Your task to perform on an android device: Open calendar and show me the fourth week of next month Image 0: 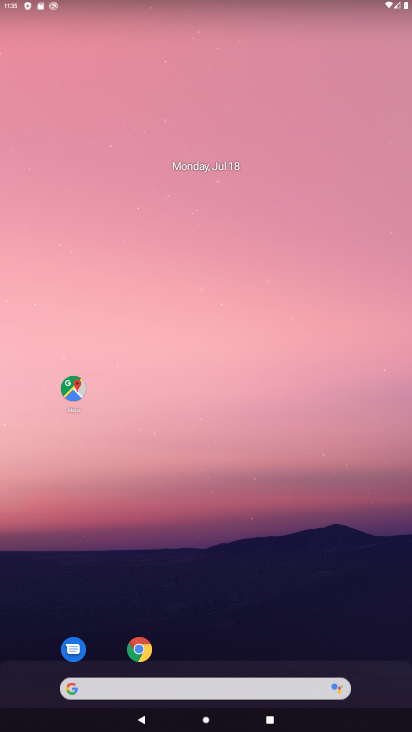
Step 0: drag from (311, 491) to (351, 203)
Your task to perform on an android device: Open calendar and show me the fourth week of next month Image 1: 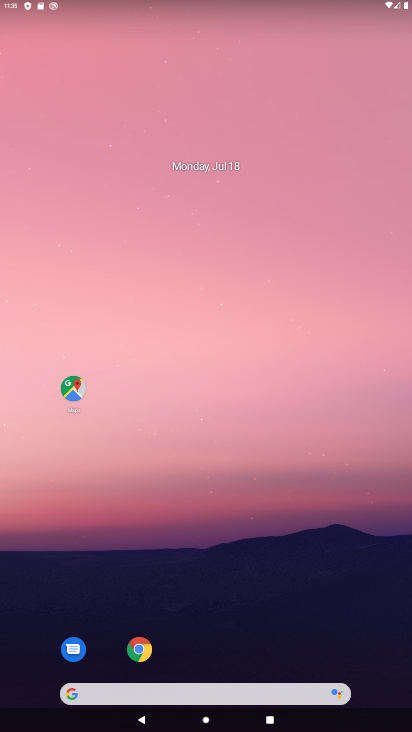
Step 1: drag from (251, 583) to (339, 190)
Your task to perform on an android device: Open calendar and show me the fourth week of next month Image 2: 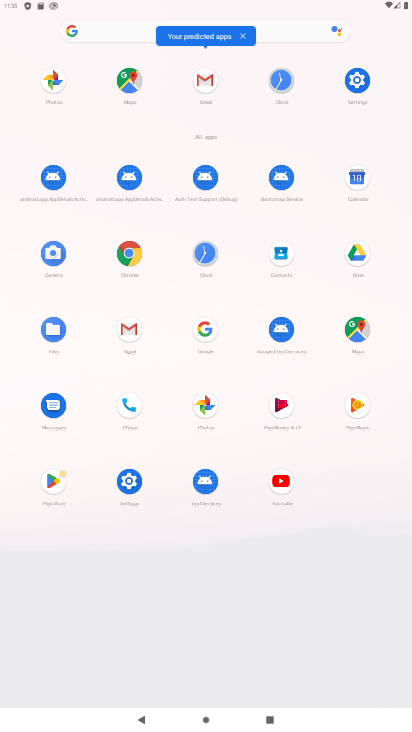
Step 2: click (361, 168)
Your task to perform on an android device: Open calendar and show me the fourth week of next month Image 3: 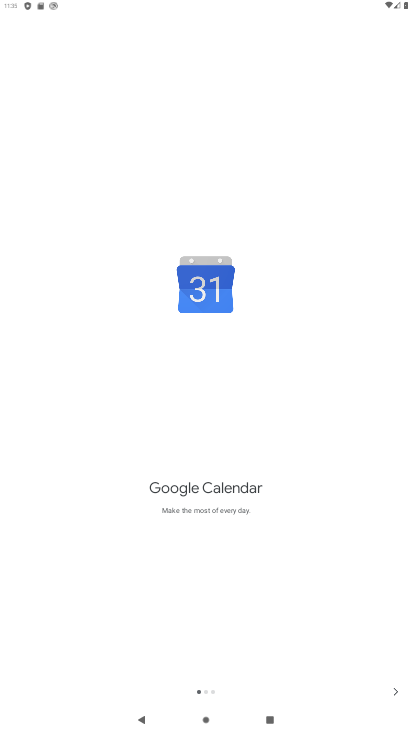
Step 3: click (395, 693)
Your task to perform on an android device: Open calendar and show me the fourth week of next month Image 4: 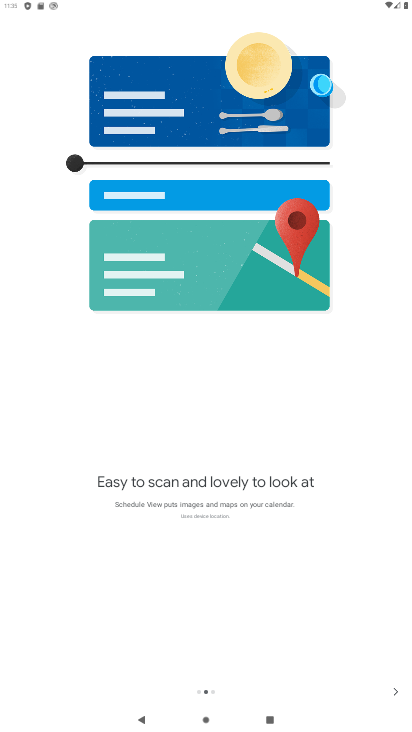
Step 4: click (395, 693)
Your task to perform on an android device: Open calendar and show me the fourth week of next month Image 5: 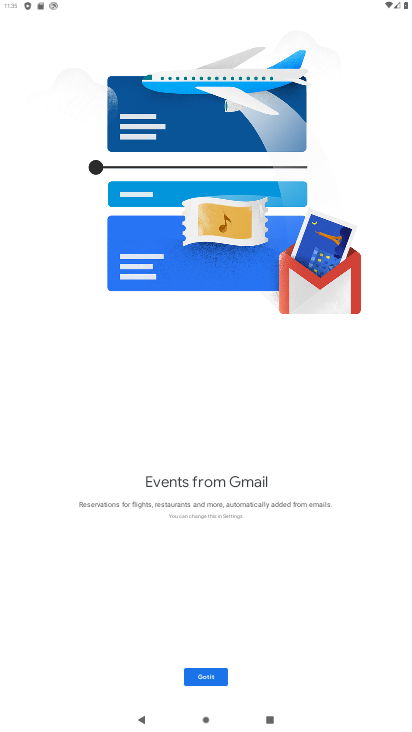
Step 5: click (395, 693)
Your task to perform on an android device: Open calendar and show me the fourth week of next month Image 6: 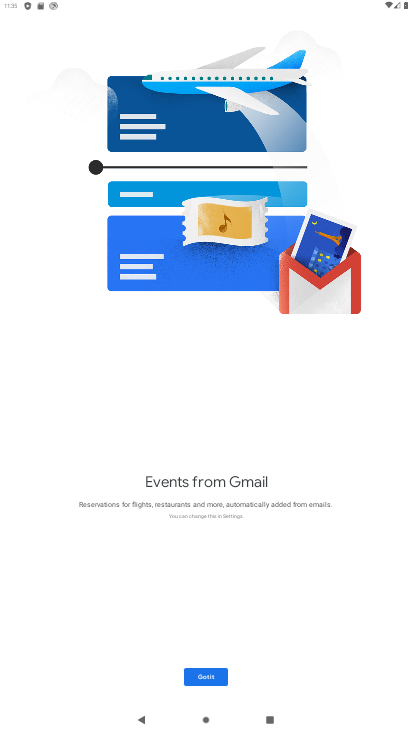
Step 6: click (198, 670)
Your task to perform on an android device: Open calendar and show me the fourth week of next month Image 7: 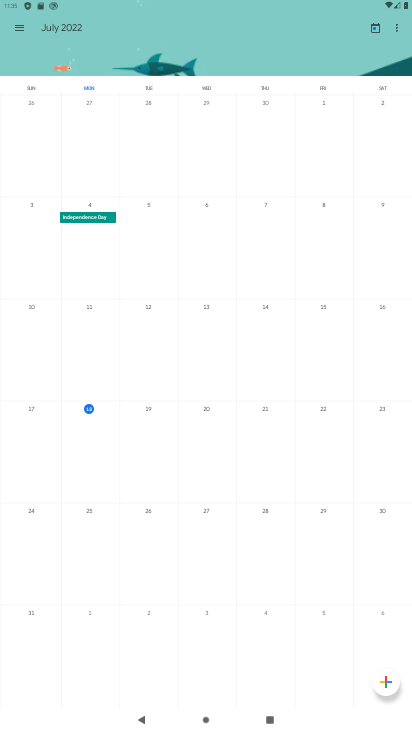
Step 7: click (24, 34)
Your task to perform on an android device: Open calendar and show me the fourth week of next month Image 8: 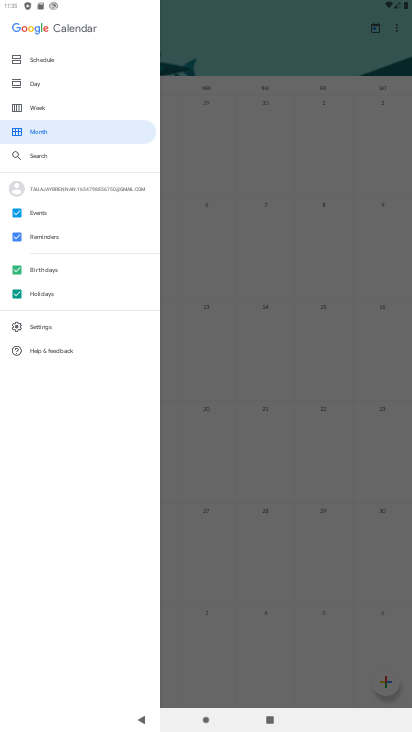
Step 8: click (67, 109)
Your task to perform on an android device: Open calendar and show me the fourth week of next month Image 9: 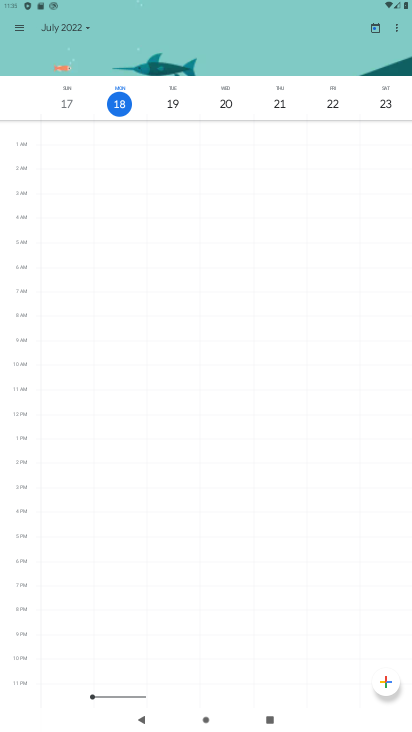
Step 9: click (68, 26)
Your task to perform on an android device: Open calendar and show me the fourth week of next month Image 10: 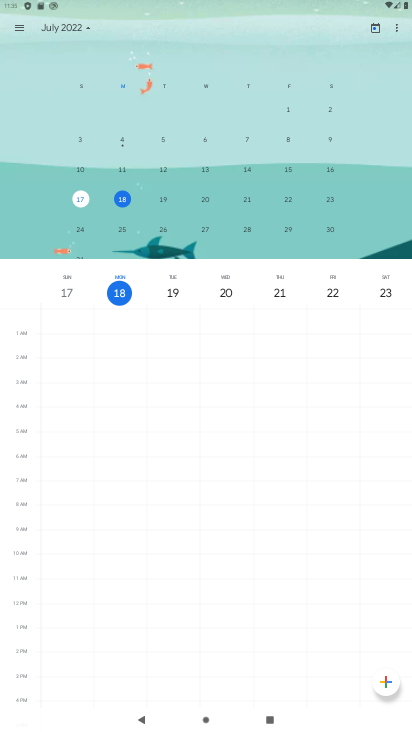
Step 10: drag from (367, 185) to (28, 183)
Your task to perform on an android device: Open calendar and show me the fourth week of next month Image 11: 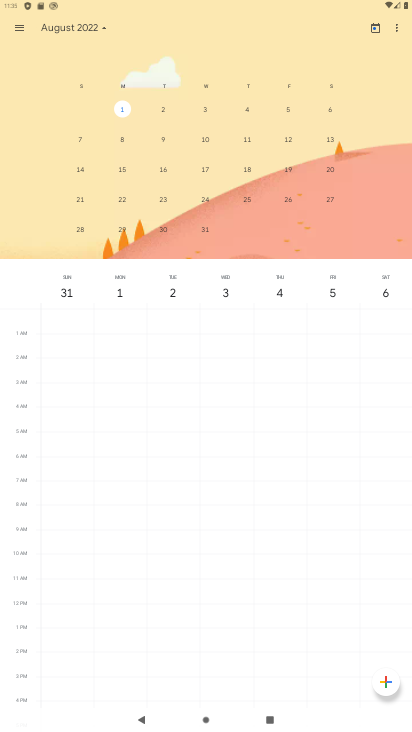
Step 11: click (86, 225)
Your task to perform on an android device: Open calendar and show me the fourth week of next month Image 12: 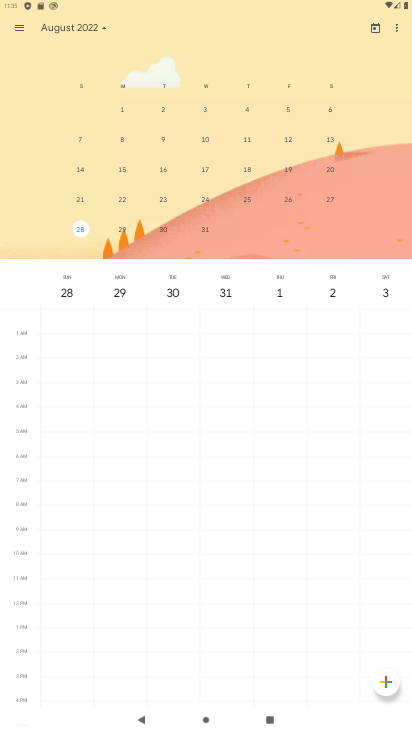
Step 12: click (104, 24)
Your task to perform on an android device: Open calendar and show me the fourth week of next month Image 13: 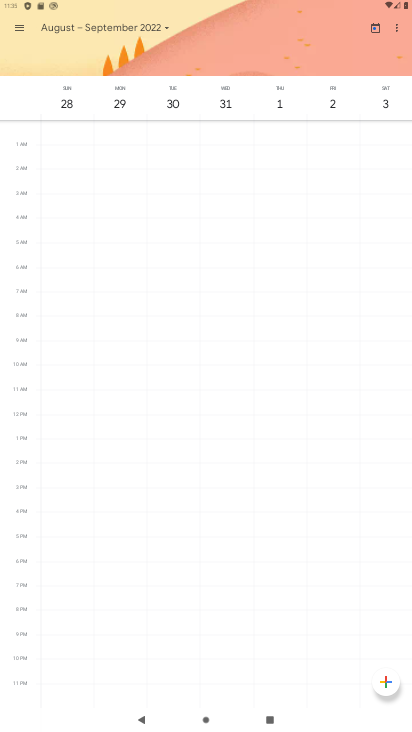
Step 13: task complete